Your task to perform on an android device: Play the last video I watched on Youtube Image 0: 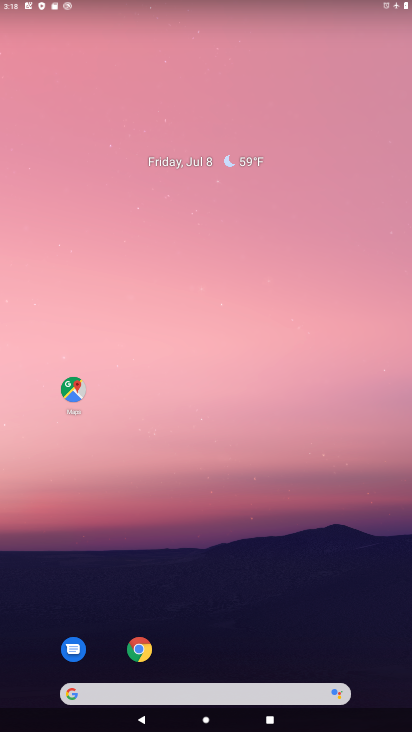
Step 0: drag from (285, 481) to (272, 210)
Your task to perform on an android device: Play the last video I watched on Youtube Image 1: 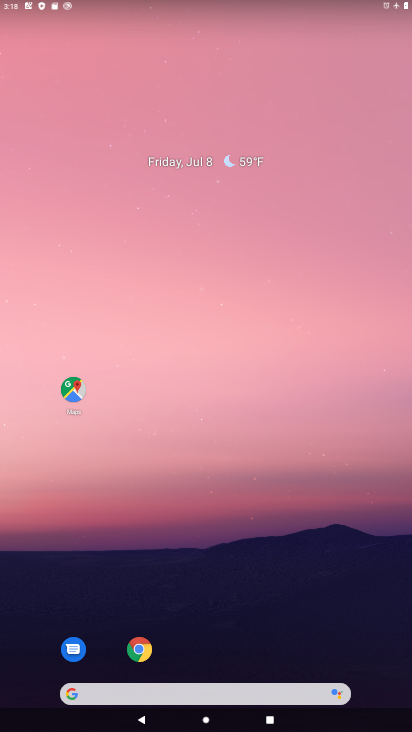
Step 1: drag from (315, 557) to (246, 110)
Your task to perform on an android device: Play the last video I watched on Youtube Image 2: 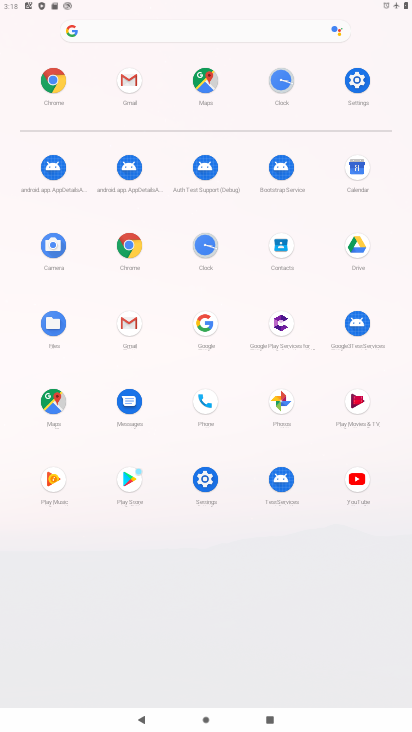
Step 2: click (361, 474)
Your task to perform on an android device: Play the last video I watched on Youtube Image 3: 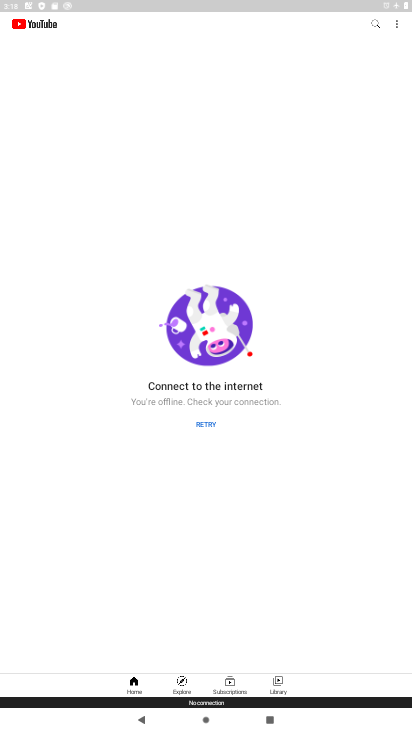
Step 3: task complete